Your task to perform on an android device: turn off notifications settings in the gmail app Image 0: 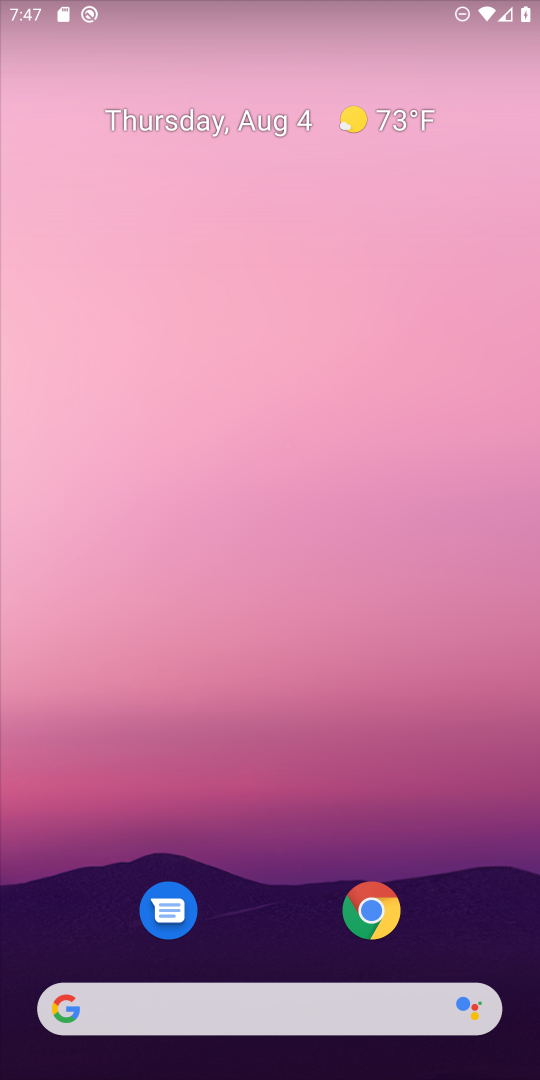
Step 0: press home button
Your task to perform on an android device: turn off notifications settings in the gmail app Image 1: 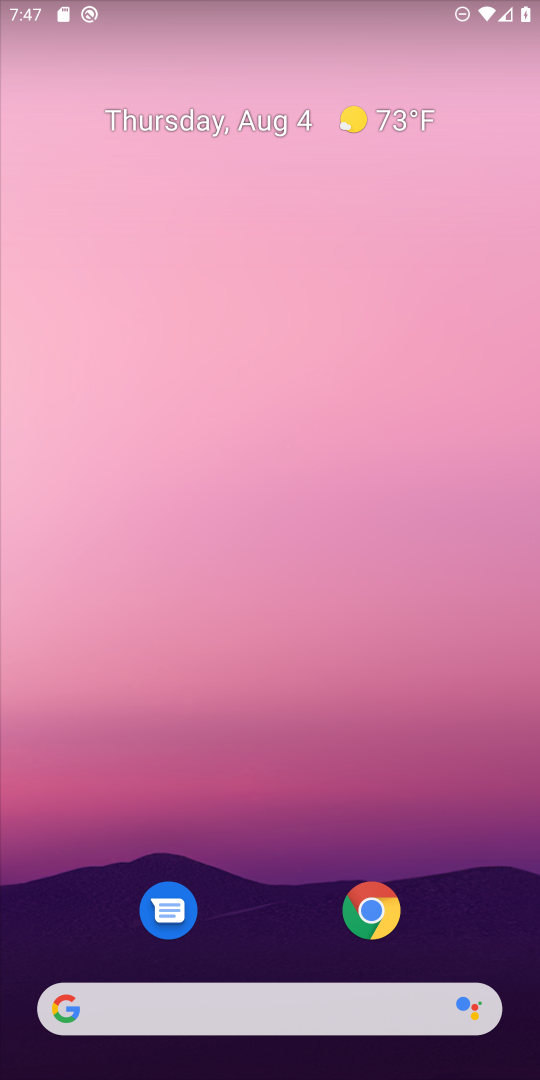
Step 1: drag from (248, 884) to (306, 181)
Your task to perform on an android device: turn off notifications settings in the gmail app Image 2: 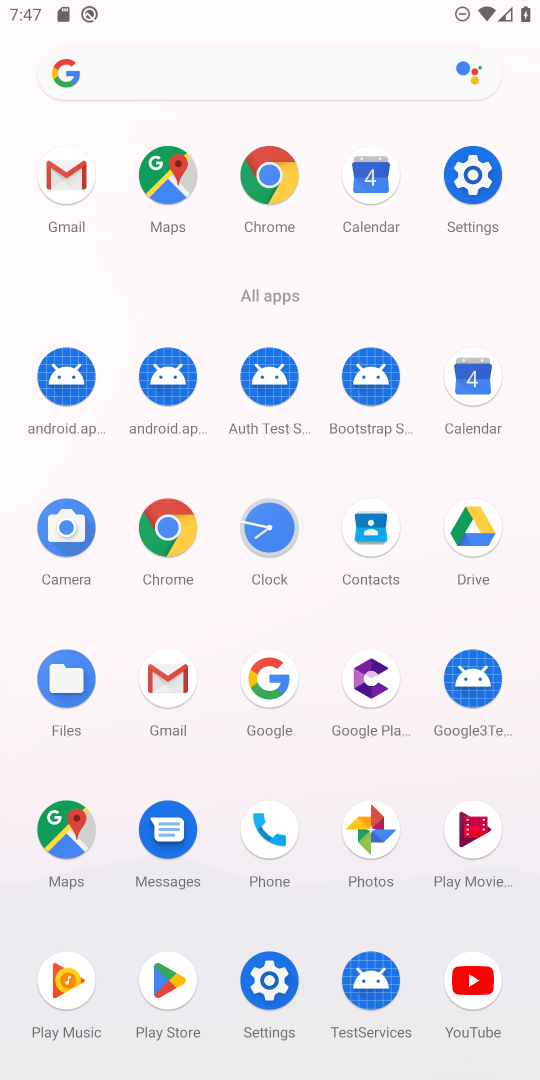
Step 2: click (170, 686)
Your task to perform on an android device: turn off notifications settings in the gmail app Image 3: 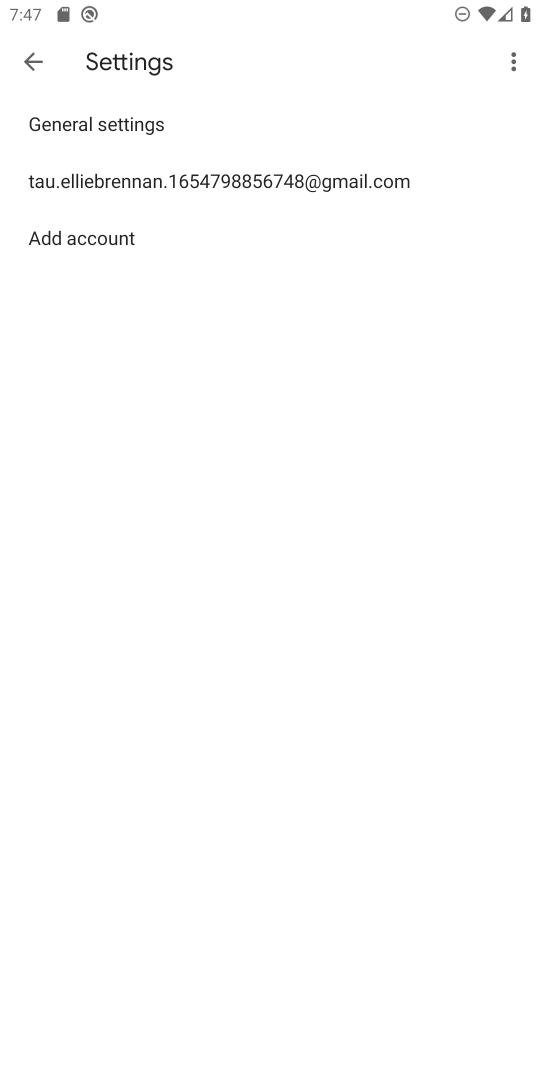
Step 3: click (190, 178)
Your task to perform on an android device: turn off notifications settings in the gmail app Image 4: 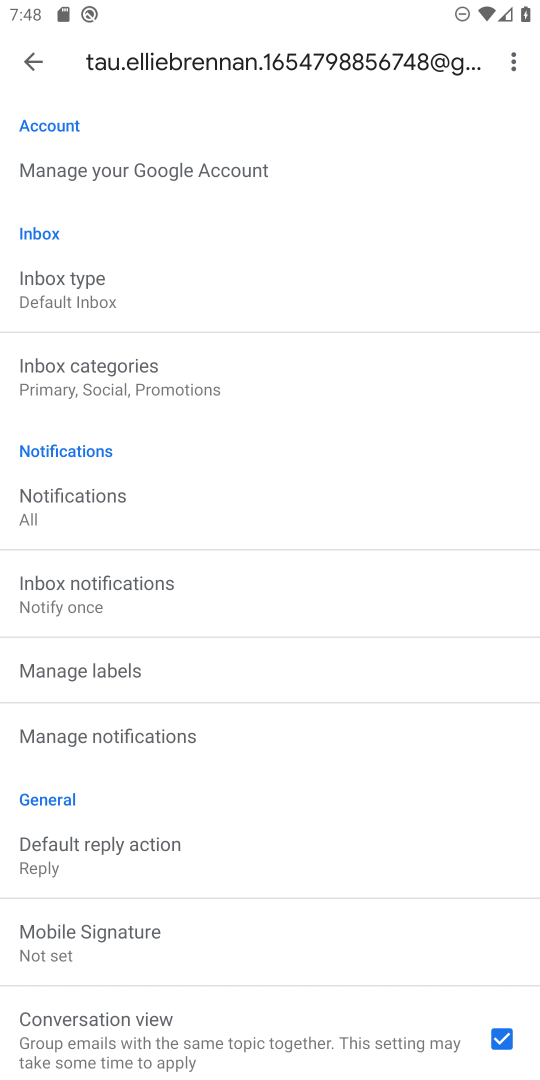
Step 4: click (100, 727)
Your task to perform on an android device: turn off notifications settings in the gmail app Image 5: 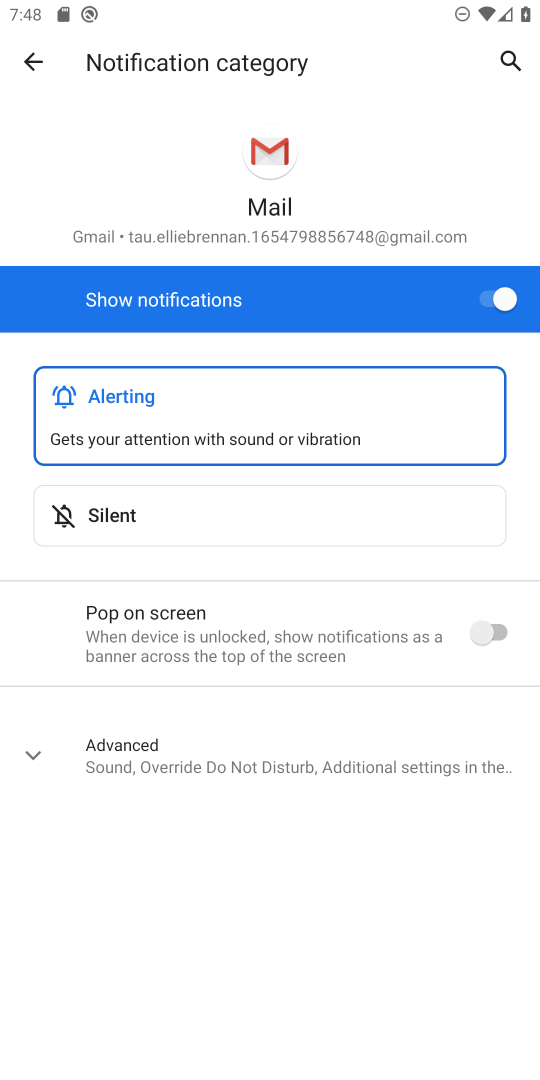
Step 5: click (502, 287)
Your task to perform on an android device: turn off notifications settings in the gmail app Image 6: 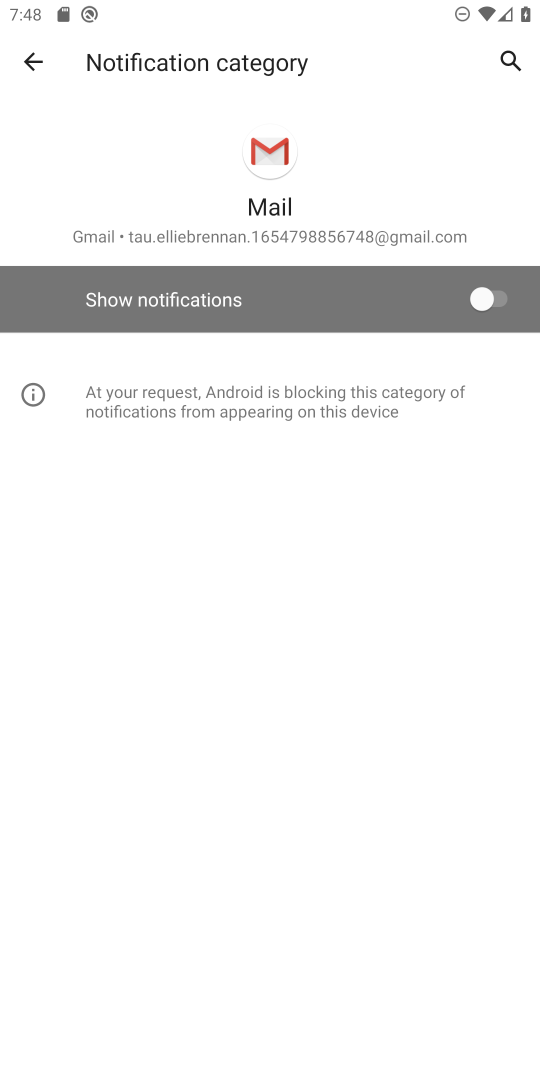
Step 6: task complete